Your task to perform on an android device: Show me popular videos on Youtube Image 0: 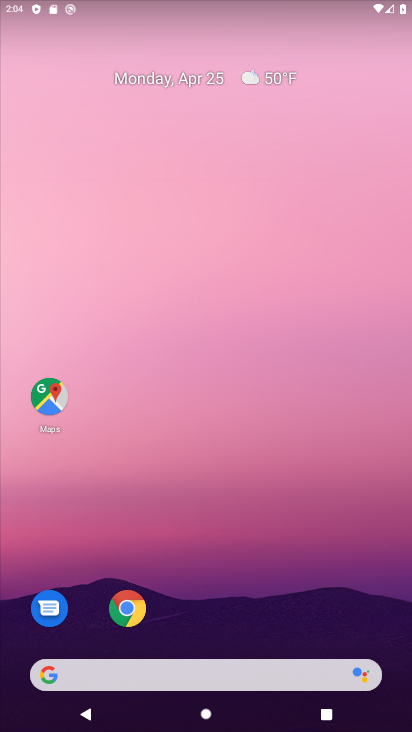
Step 0: drag from (227, 537) to (230, 160)
Your task to perform on an android device: Show me popular videos on Youtube Image 1: 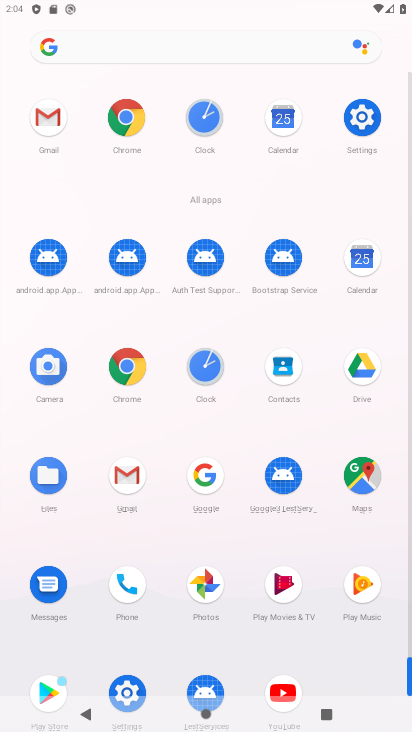
Step 1: drag from (258, 630) to (290, 390)
Your task to perform on an android device: Show me popular videos on Youtube Image 2: 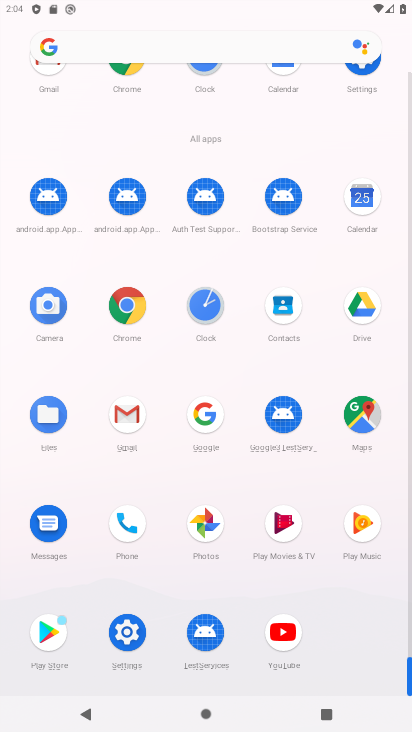
Step 2: click (283, 614)
Your task to perform on an android device: Show me popular videos on Youtube Image 3: 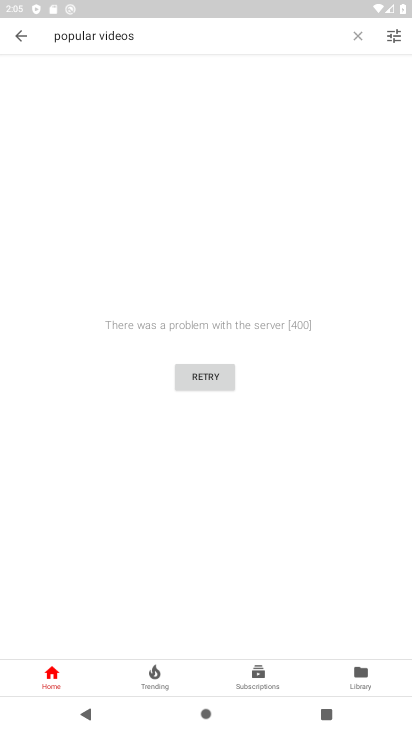
Step 3: click (205, 39)
Your task to perform on an android device: Show me popular videos on Youtube Image 4: 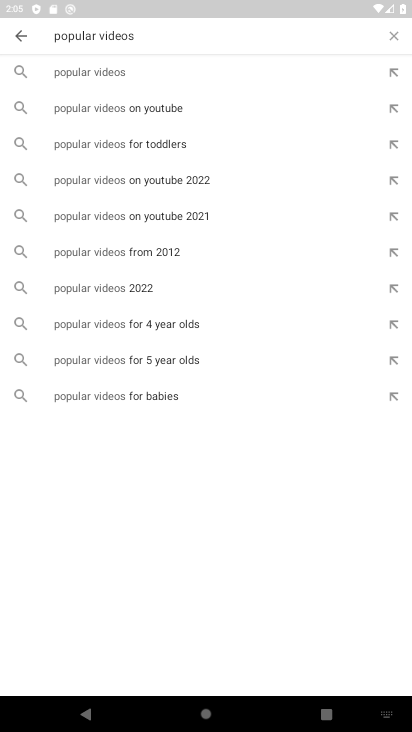
Step 4: click (113, 75)
Your task to perform on an android device: Show me popular videos on Youtube Image 5: 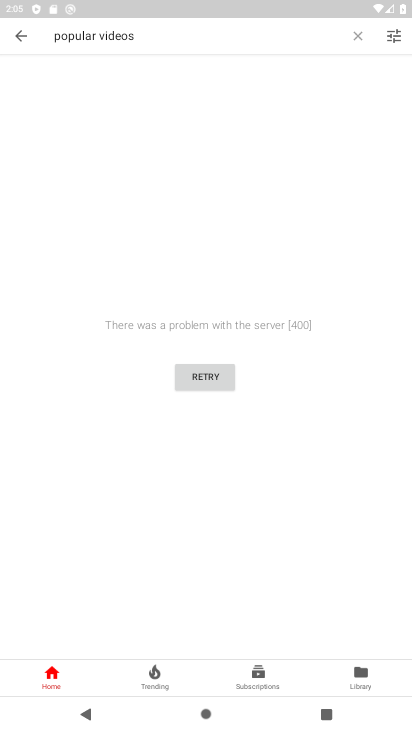
Step 5: task complete